Your task to perform on an android device: change timer sound Image 0: 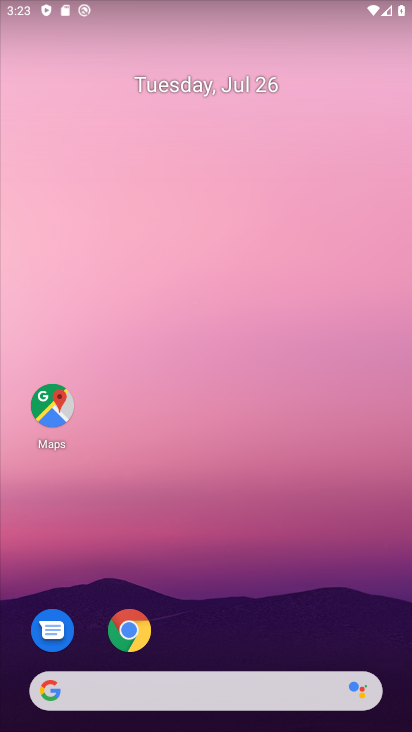
Step 0: drag from (356, 520) to (328, 150)
Your task to perform on an android device: change timer sound Image 1: 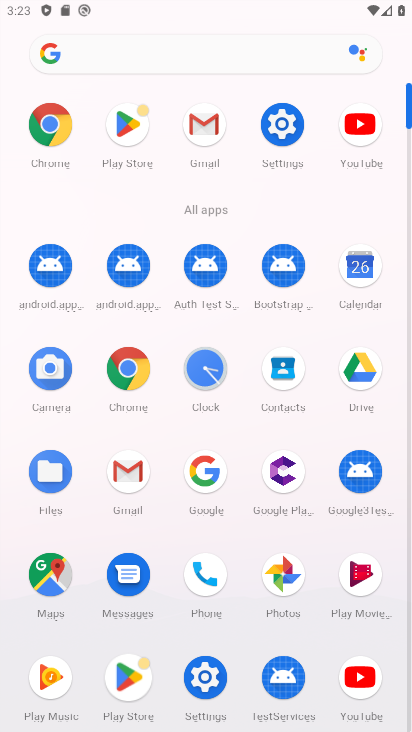
Step 1: click (276, 120)
Your task to perform on an android device: change timer sound Image 2: 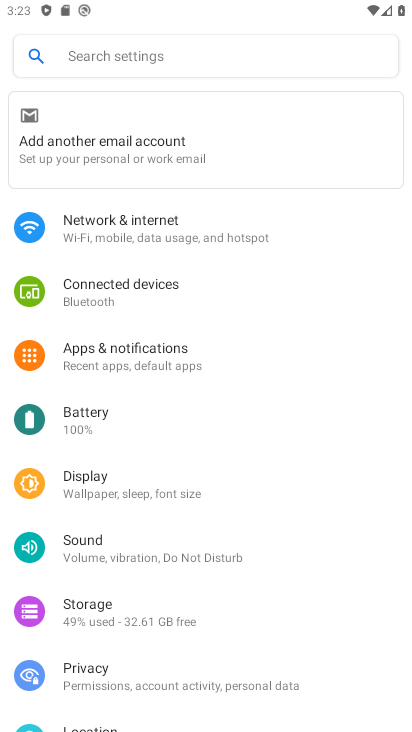
Step 2: press back button
Your task to perform on an android device: change timer sound Image 3: 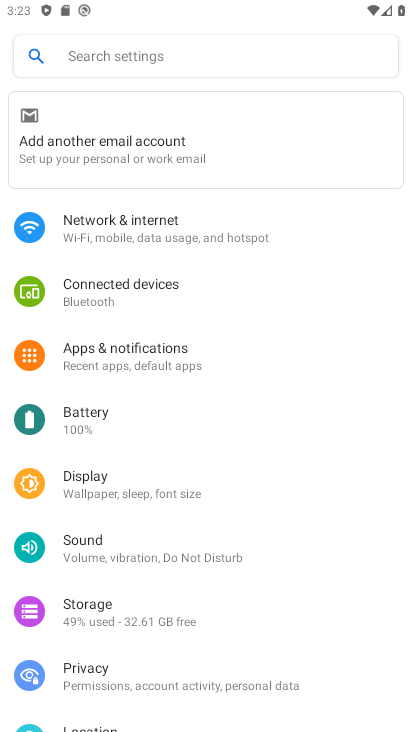
Step 3: press back button
Your task to perform on an android device: change timer sound Image 4: 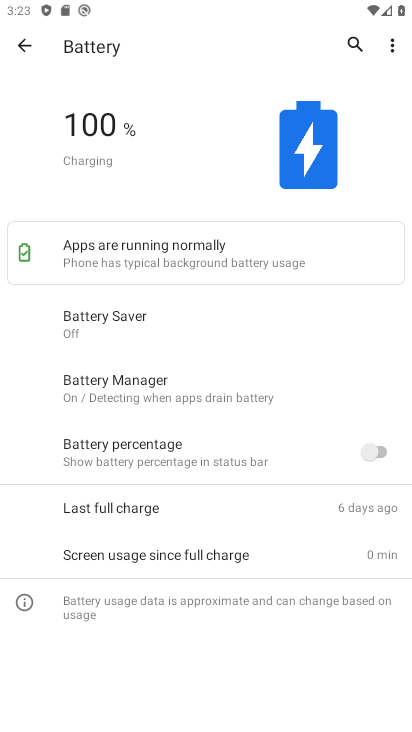
Step 4: press back button
Your task to perform on an android device: change timer sound Image 5: 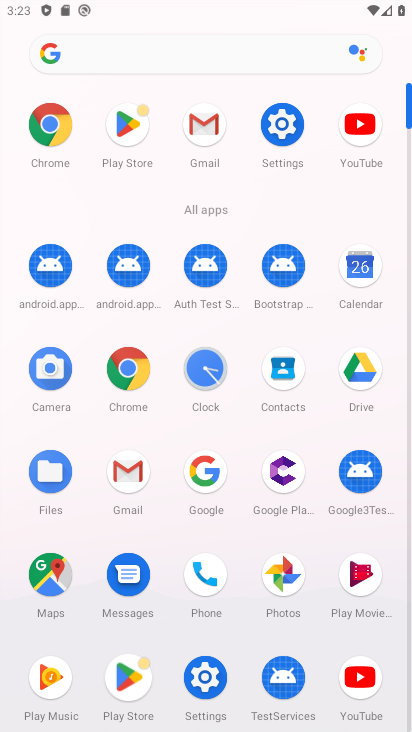
Step 5: click (198, 359)
Your task to perform on an android device: change timer sound Image 6: 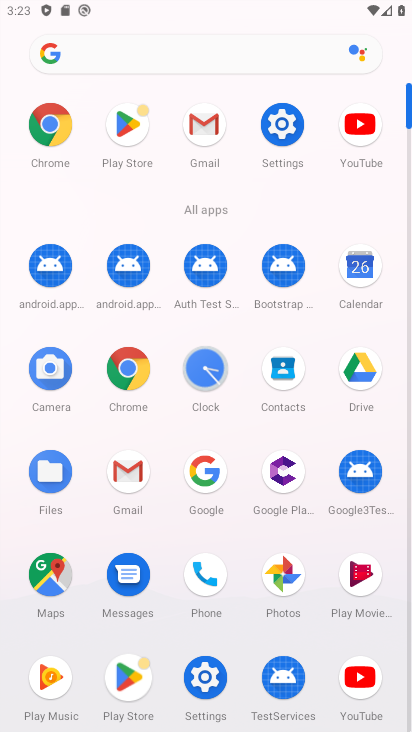
Step 6: click (198, 365)
Your task to perform on an android device: change timer sound Image 7: 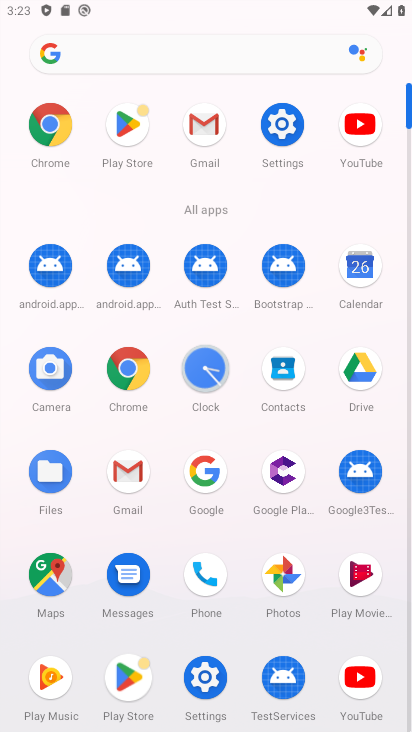
Step 7: click (198, 365)
Your task to perform on an android device: change timer sound Image 8: 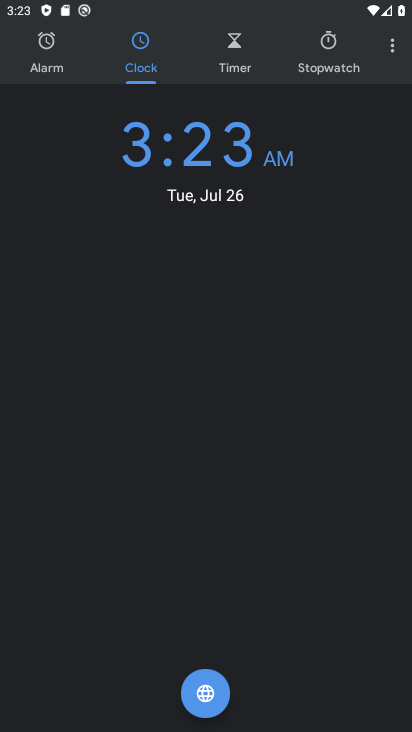
Step 8: click (389, 45)
Your task to perform on an android device: change timer sound Image 9: 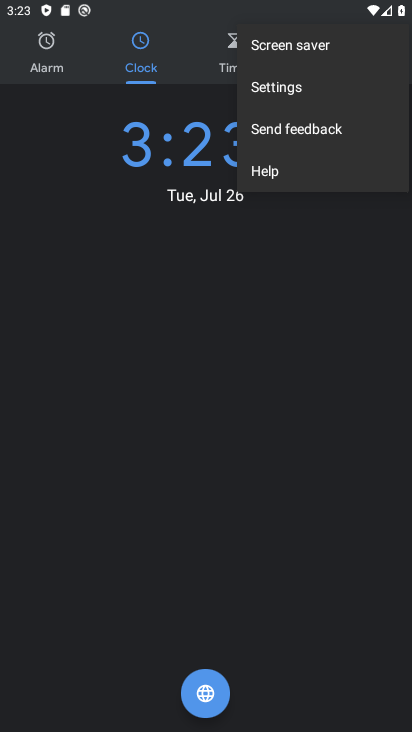
Step 9: click (270, 85)
Your task to perform on an android device: change timer sound Image 10: 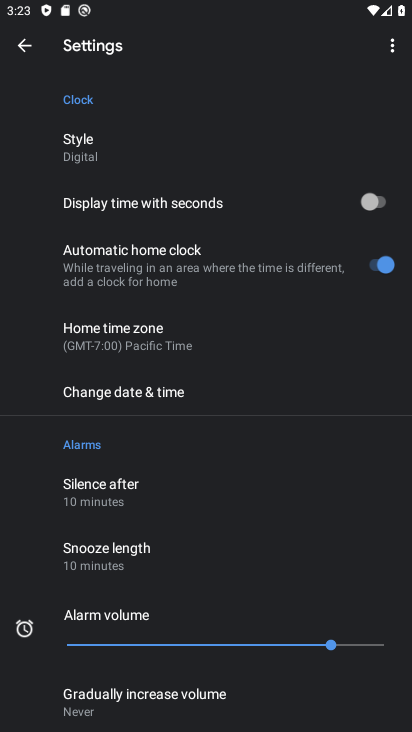
Step 10: drag from (112, 553) to (74, 219)
Your task to perform on an android device: change timer sound Image 11: 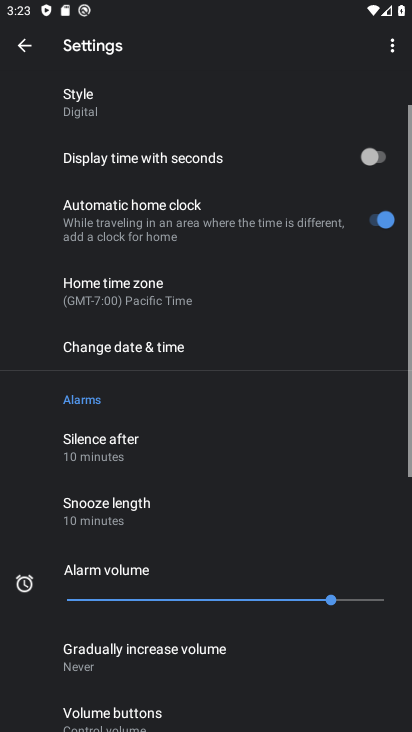
Step 11: drag from (150, 535) to (155, 311)
Your task to perform on an android device: change timer sound Image 12: 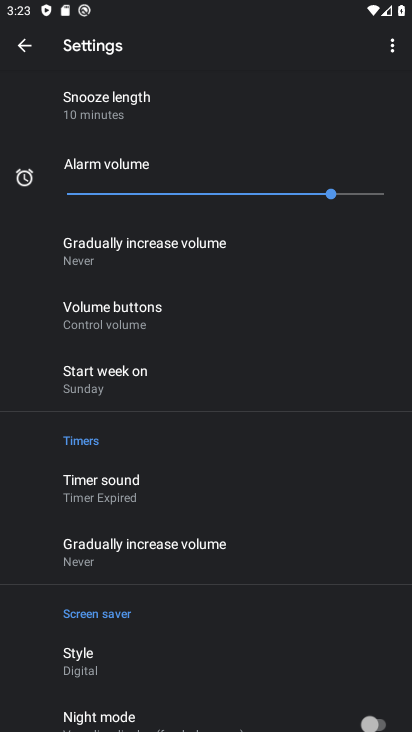
Step 12: click (107, 517)
Your task to perform on an android device: change timer sound Image 13: 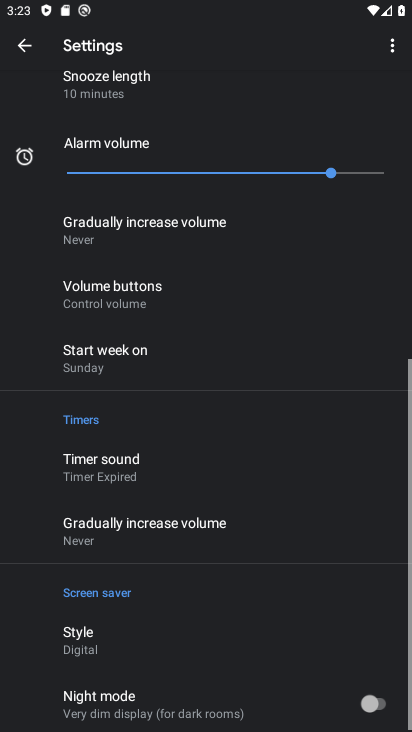
Step 13: click (112, 484)
Your task to perform on an android device: change timer sound Image 14: 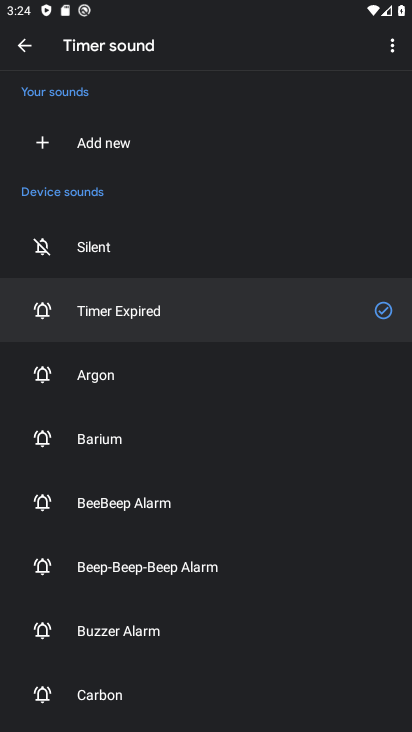
Step 14: click (66, 374)
Your task to perform on an android device: change timer sound Image 15: 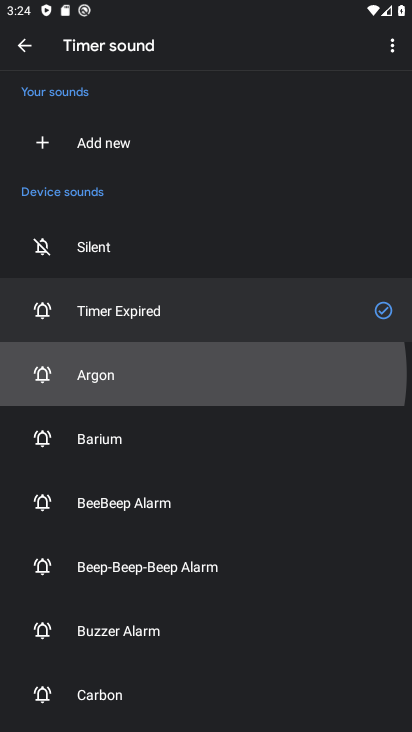
Step 15: click (70, 366)
Your task to perform on an android device: change timer sound Image 16: 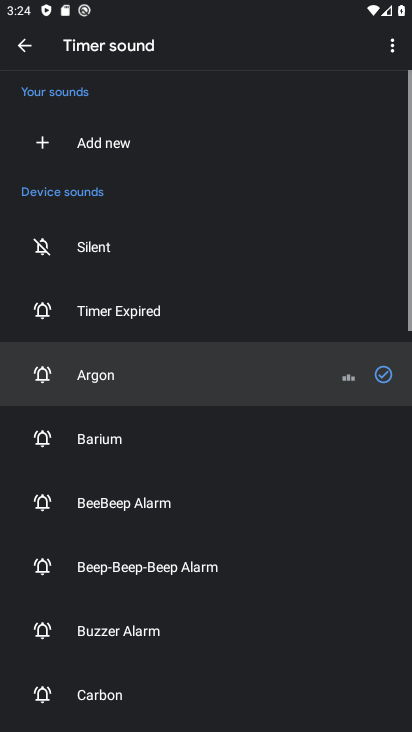
Step 16: click (70, 366)
Your task to perform on an android device: change timer sound Image 17: 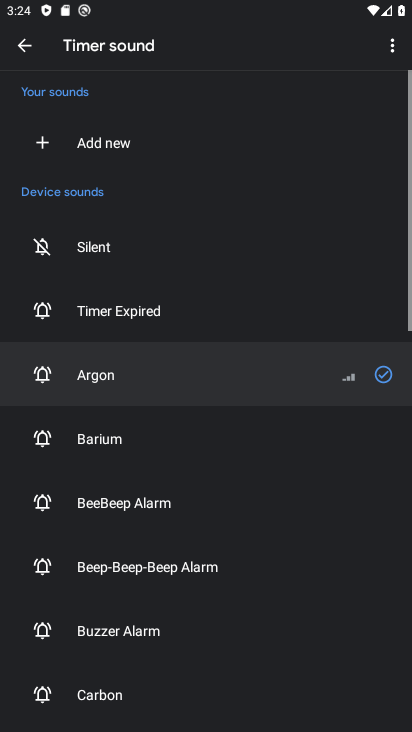
Step 17: task complete